Your task to perform on an android device: What's the price of the Galaxy phone on eBay? Image 0: 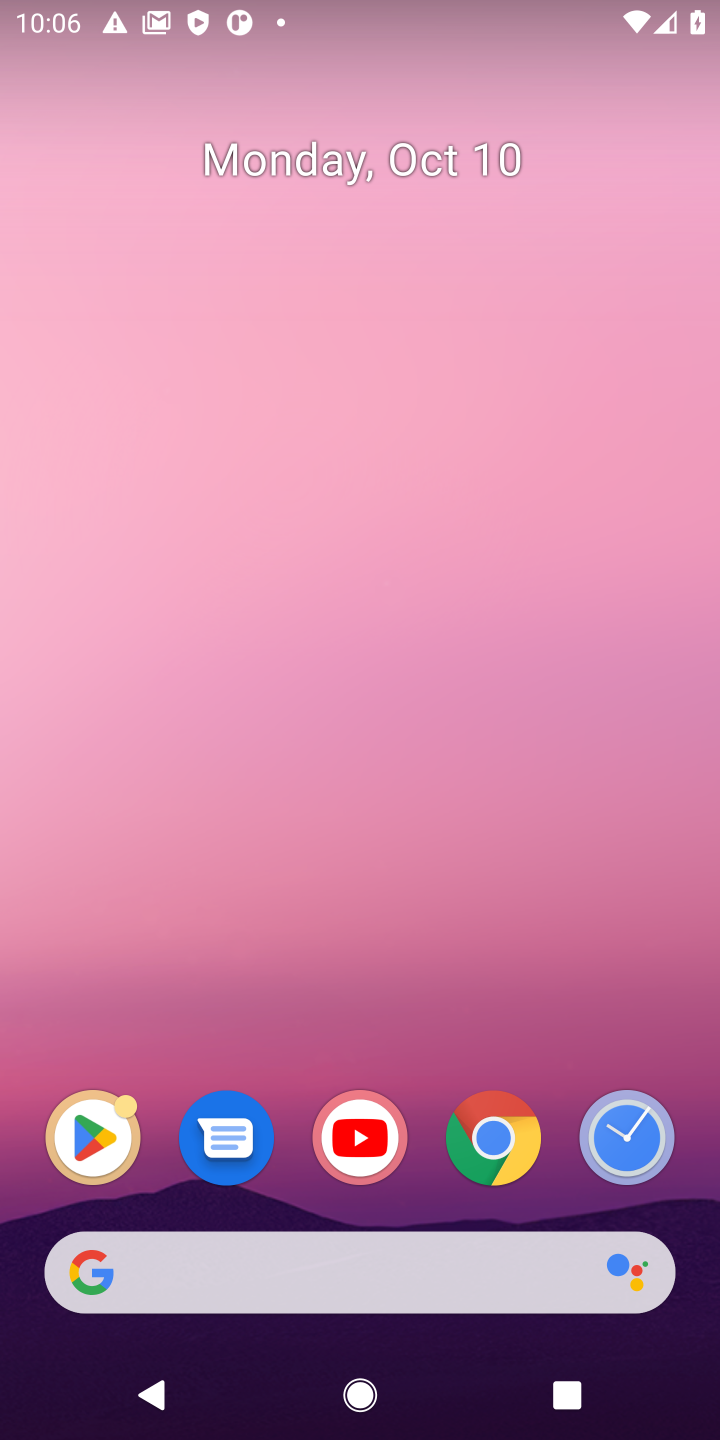
Step 0: click (477, 1249)
Your task to perform on an android device: What's the price of the Galaxy phone on eBay? Image 1: 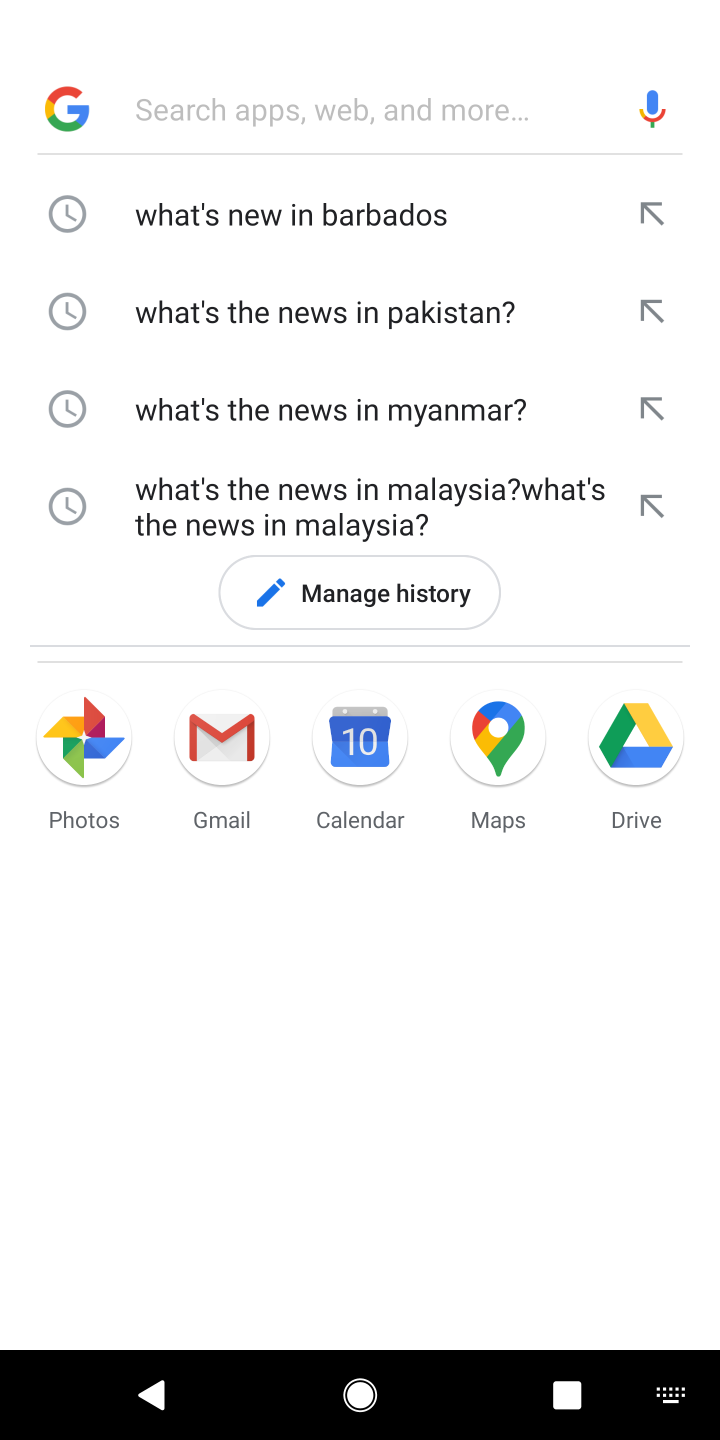
Step 1: type "What's the price of the Galaxy phone on eBay?"
Your task to perform on an android device: What's the price of the Galaxy phone on eBay? Image 2: 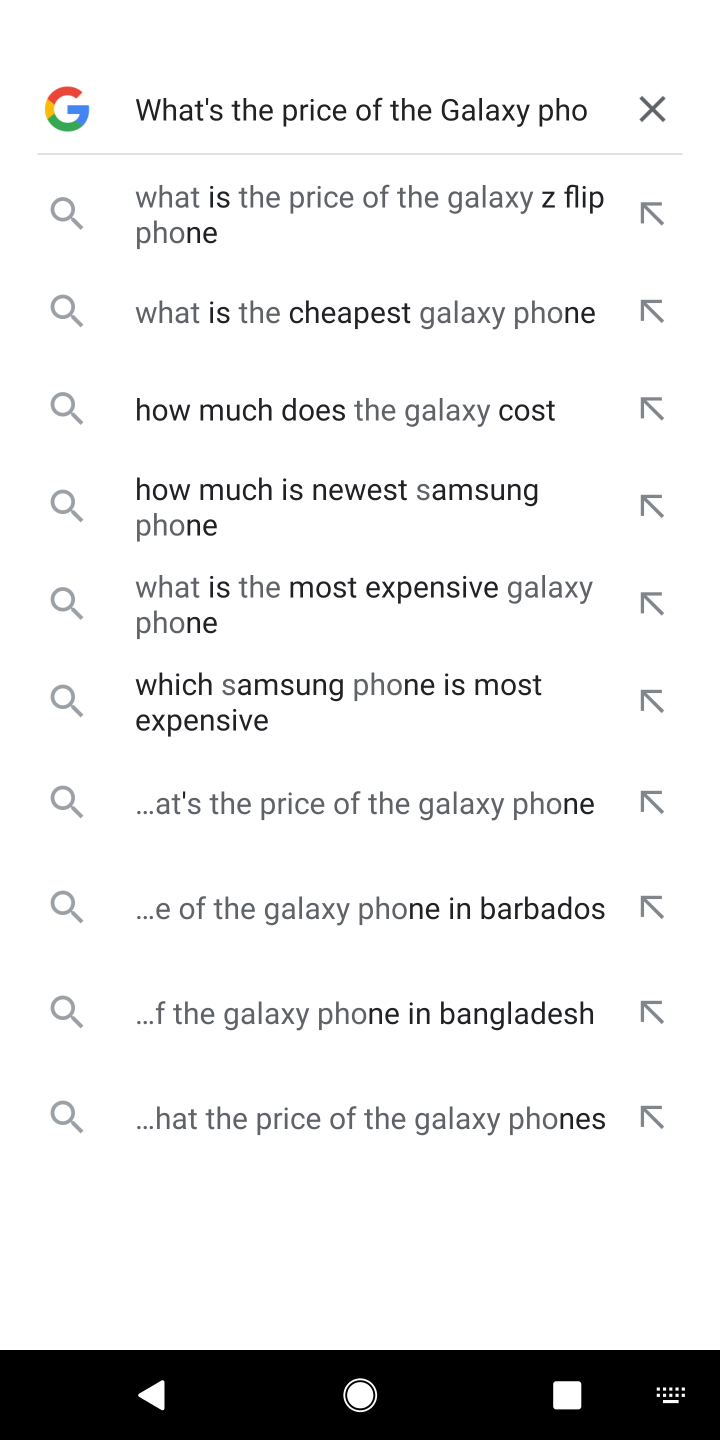
Step 2: type "ne on ebay"
Your task to perform on an android device: What's the price of the Galaxy phone on eBay? Image 3: 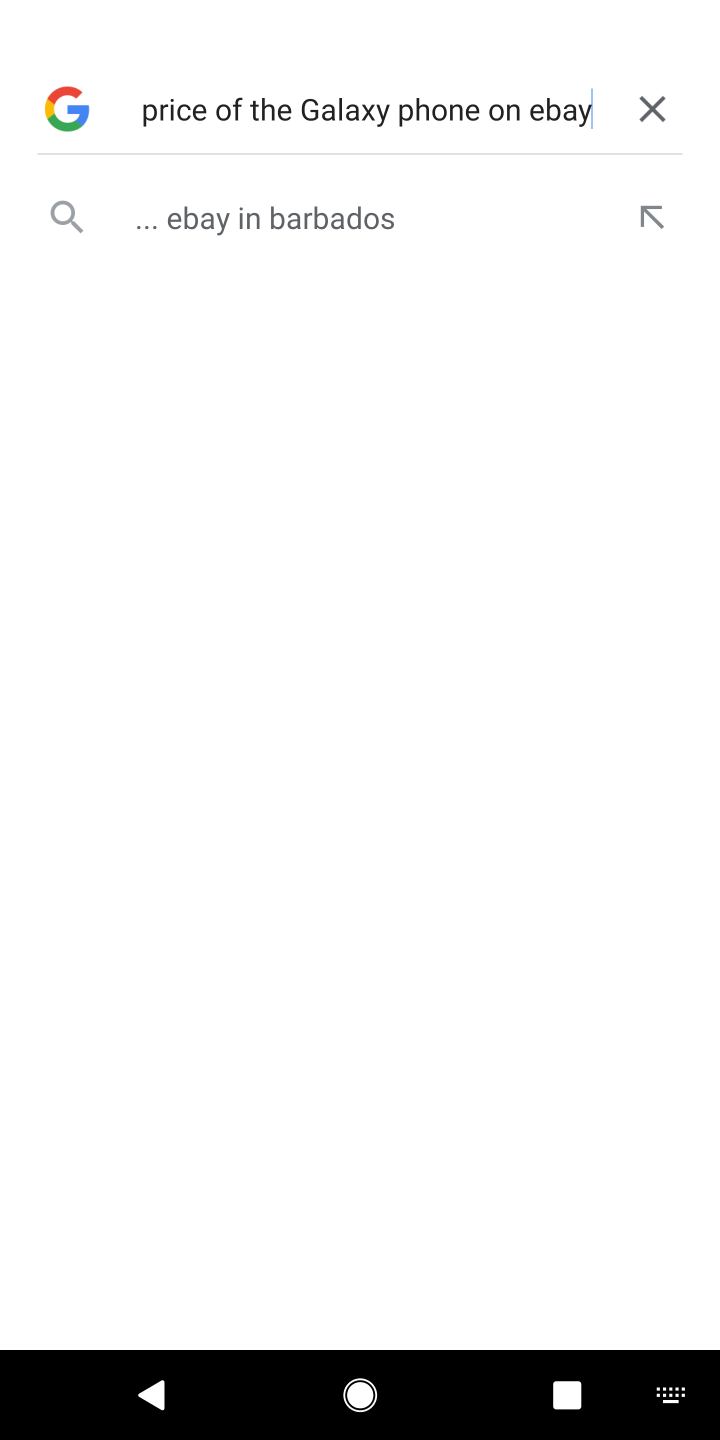
Step 3: click (257, 204)
Your task to perform on an android device: What's the price of the Galaxy phone on eBay? Image 4: 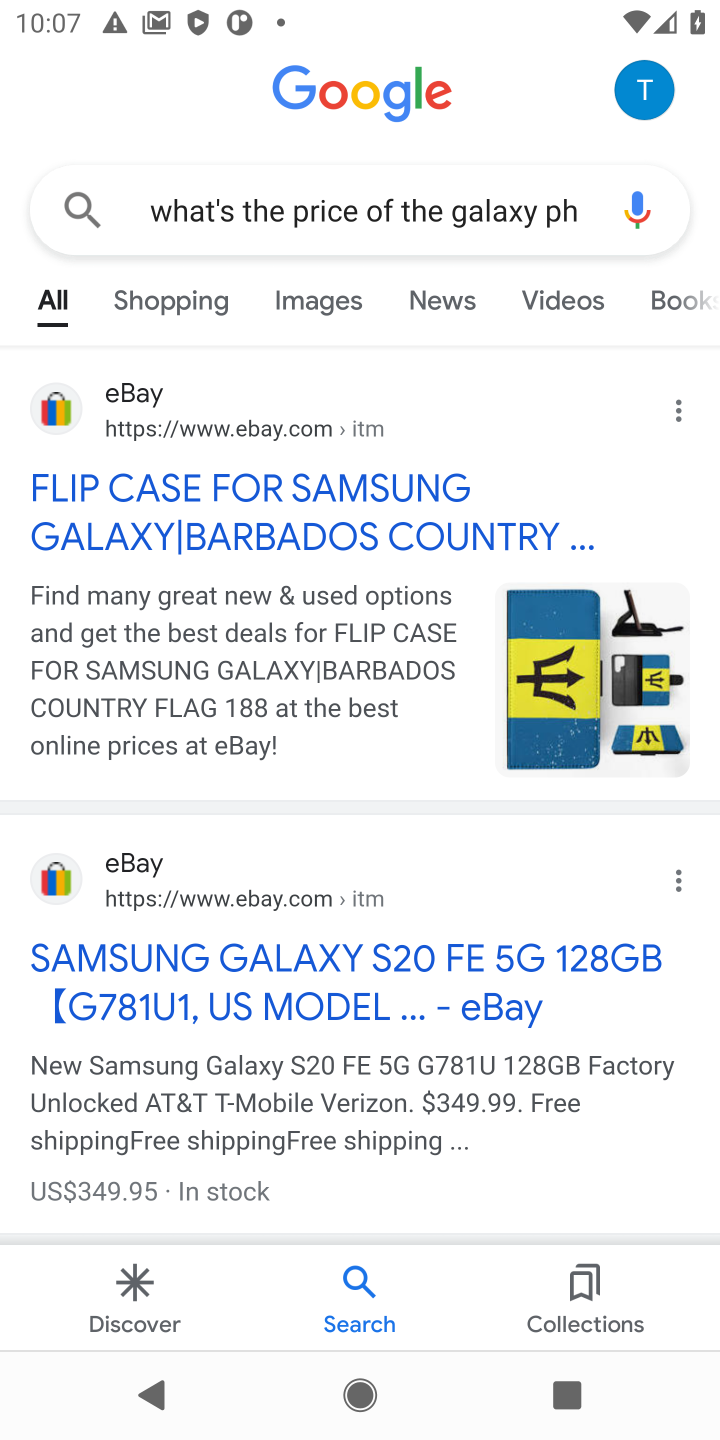
Step 4: click (332, 951)
Your task to perform on an android device: What's the price of the Galaxy phone on eBay? Image 5: 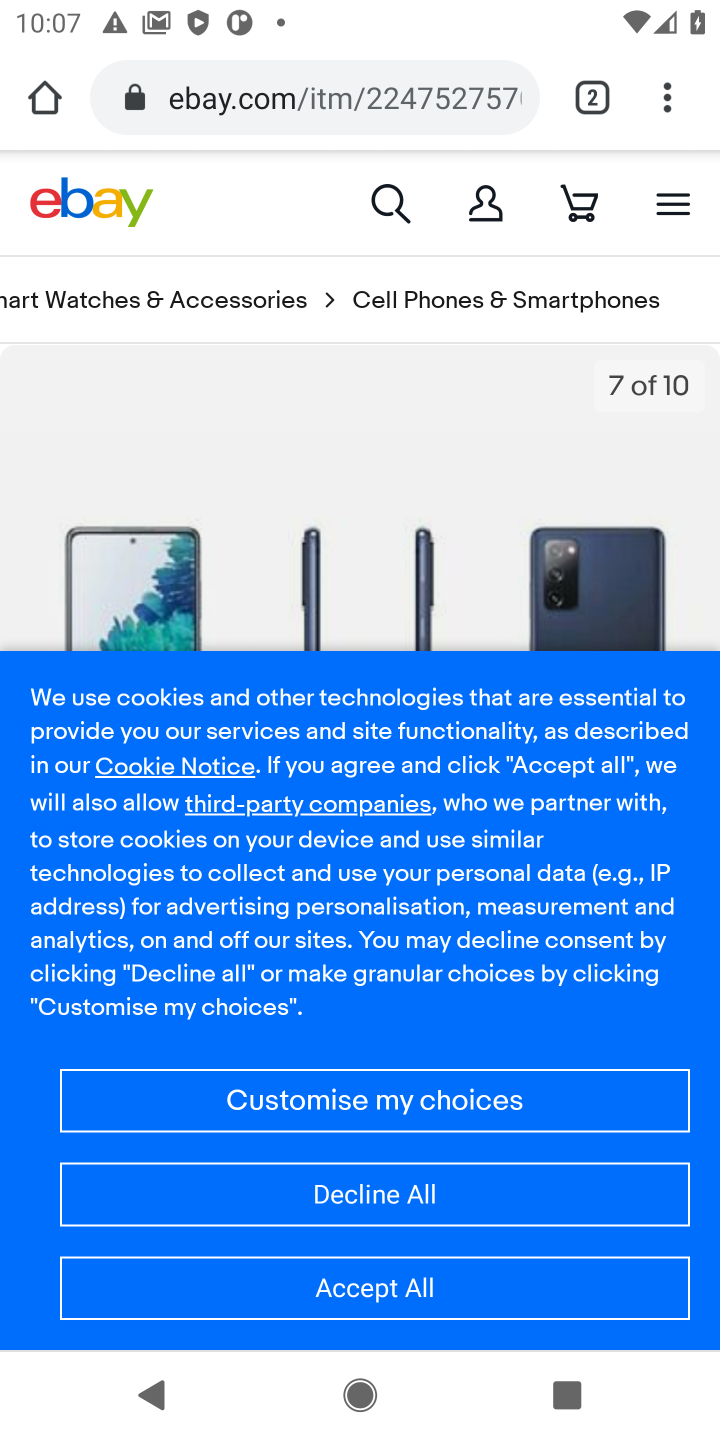
Step 5: click (339, 1291)
Your task to perform on an android device: What's the price of the Galaxy phone on eBay? Image 6: 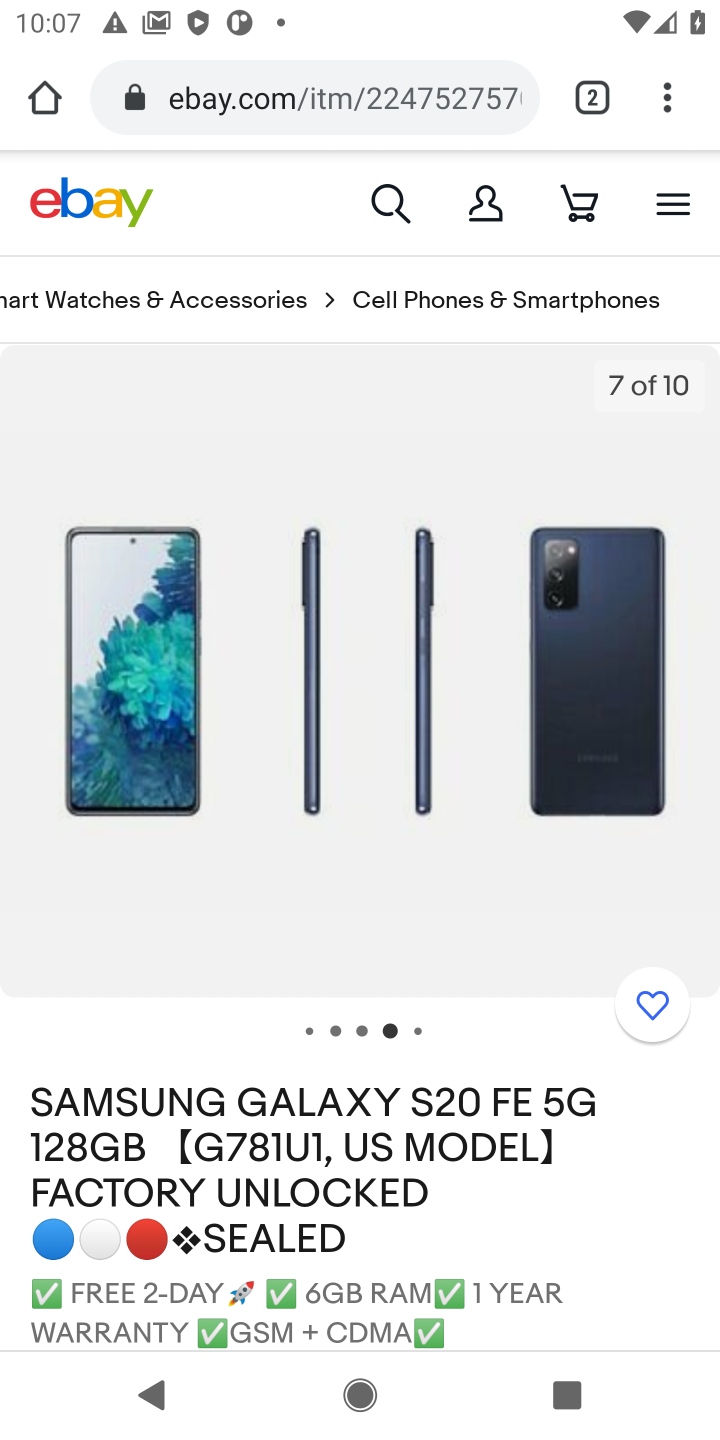
Step 6: task complete